Your task to perform on an android device: See recent photos Image 0: 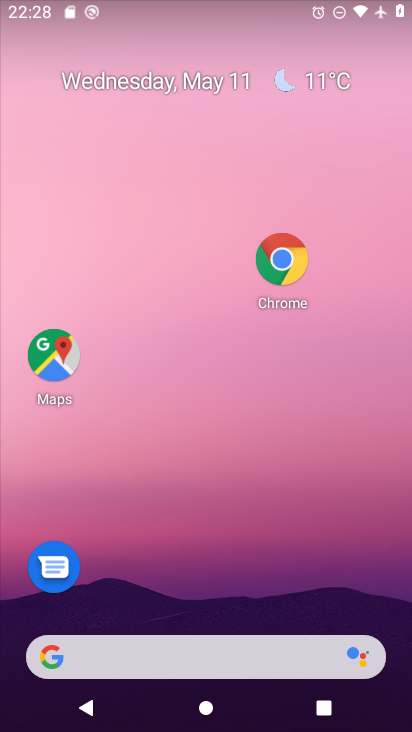
Step 0: drag from (201, 617) to (317, 120)
Your task to perform on an android device: See recent photos Image 1: 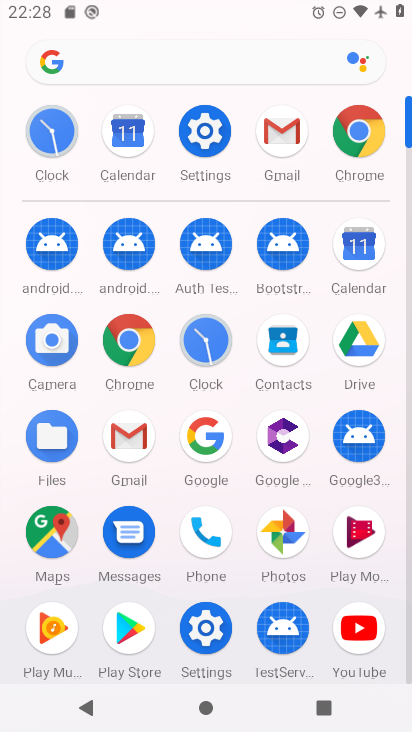
Step 1: click (289, 530)
Your task to perform on an android device: See recent photos Image 2: 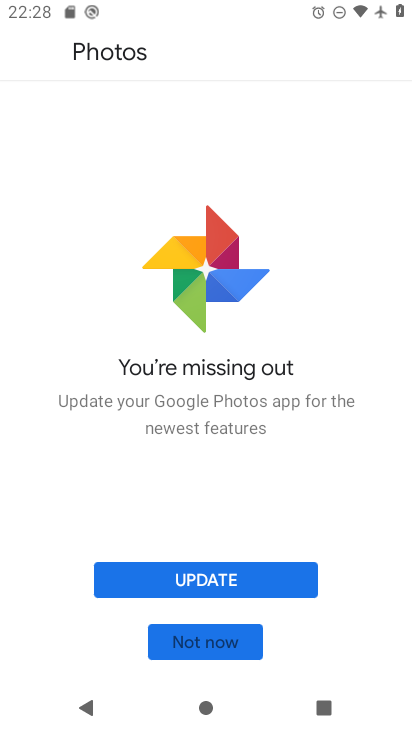
Step 2: click (213, 589)
Your task to perform on an android device: See recent photos Image 3: 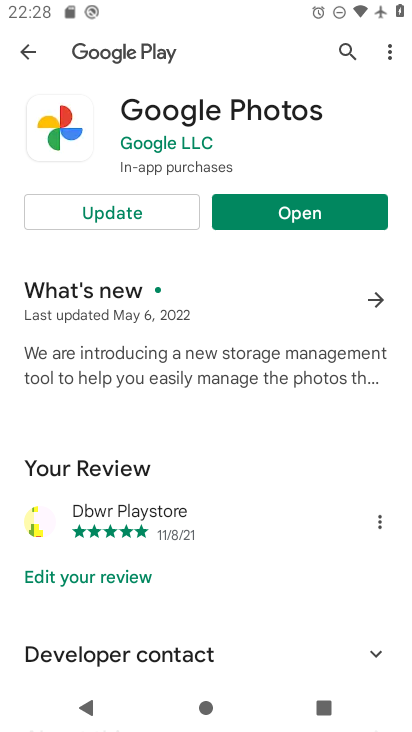
Step 3: click (97, 208)
Your task to perform on an android device: See recent photos Image 4: 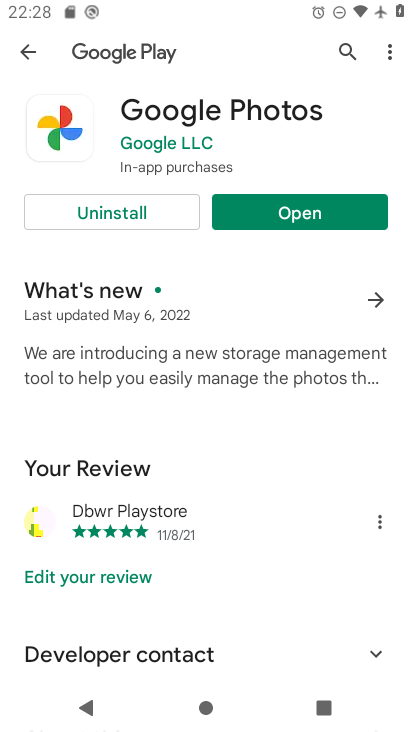
Step 4: click (316, 218)
Your task to perform on an android device: See recent photos Image 5: 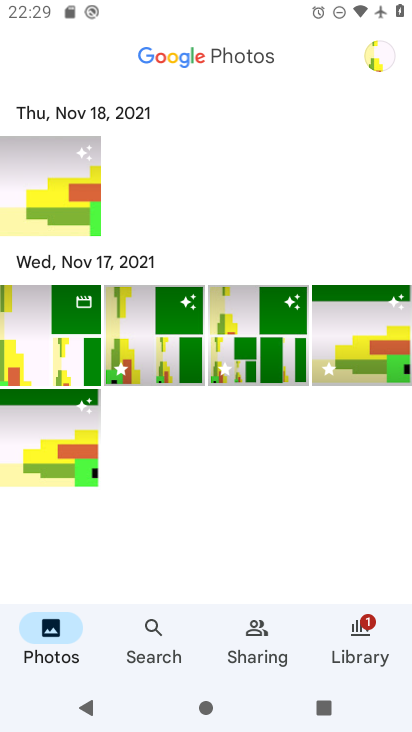
Step 5: click (160, 641)
Your task to perform on an android device: See recent photos Image 6: 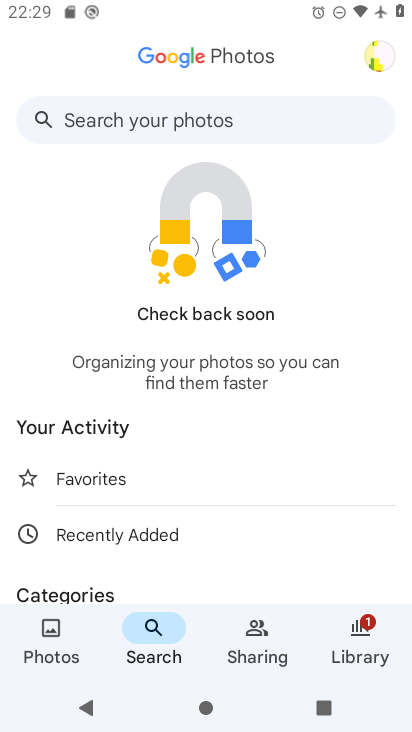
Step 6: drag from (263, 511) to (315, 346)
Your task to perform on an android device: See recent photos Image 7: 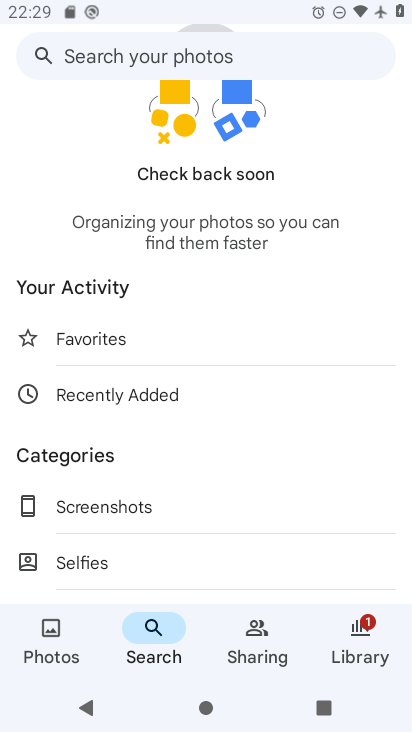
Step 7: click (158, 386)
Your task to perform on an android device: See recent photos Image 8: 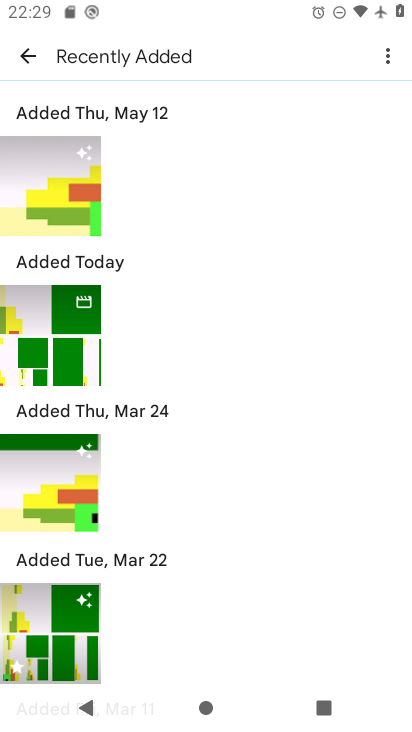
Step 8: task complete